Your task to perform on an android device: Go to ESPN.com Image 0: 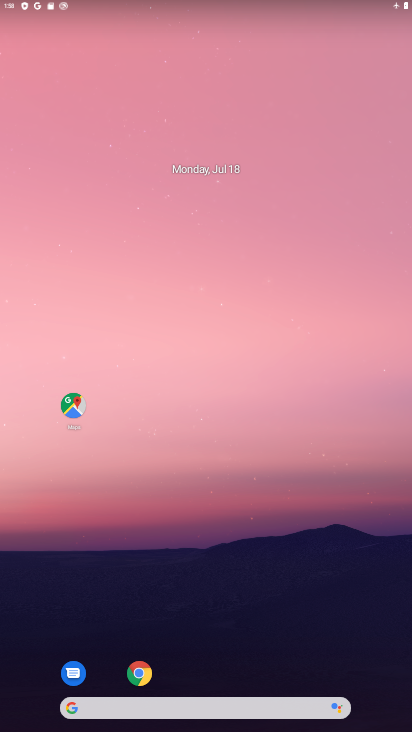
Step 0: click (141, 674)
Your task to perform on an android device: Go to ESPN.com Image 1: 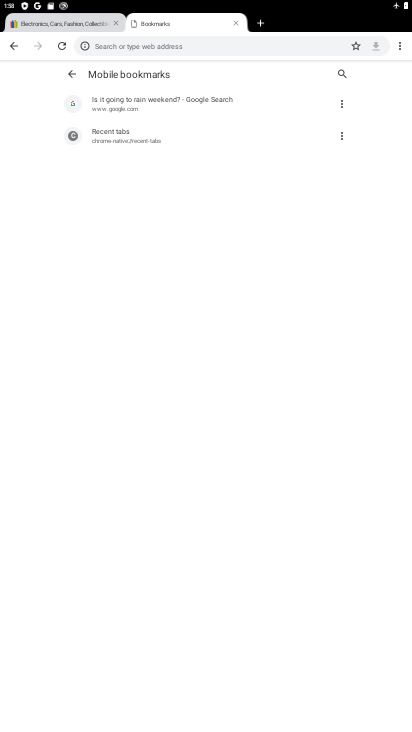
Step 1: click (205, 49)
Your task to perform on an android device: Go to ESPN.com Image 2: 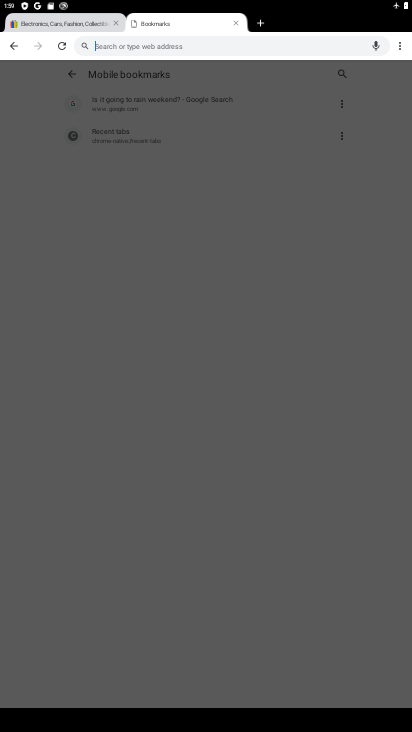
Step 2: type "ESPN.com"
Your task to perform on an android device: Go to ESPN.com Image 3: 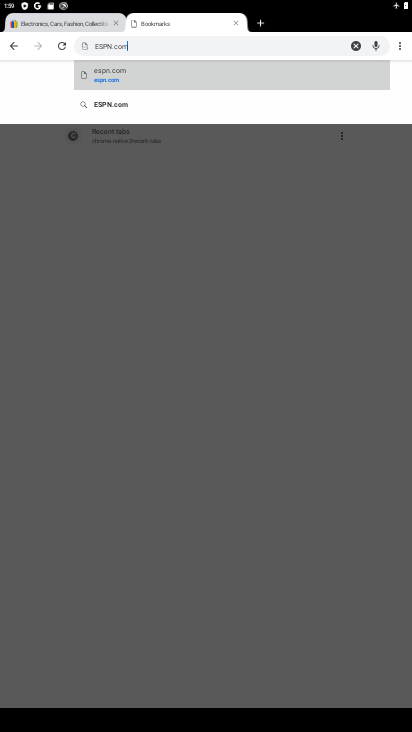
Step 3: type ""
Your task to perform on an android device: Go to ESPN.com Image 4: 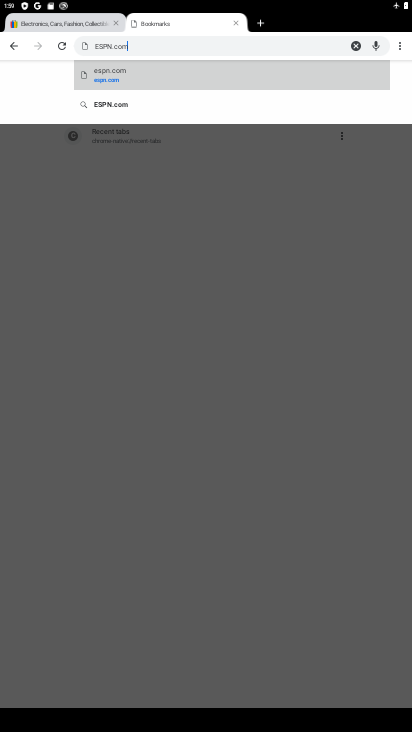
Step 4: click (125, 108)
Your task to perform on an android device: Go to ESPN.com Image 5: 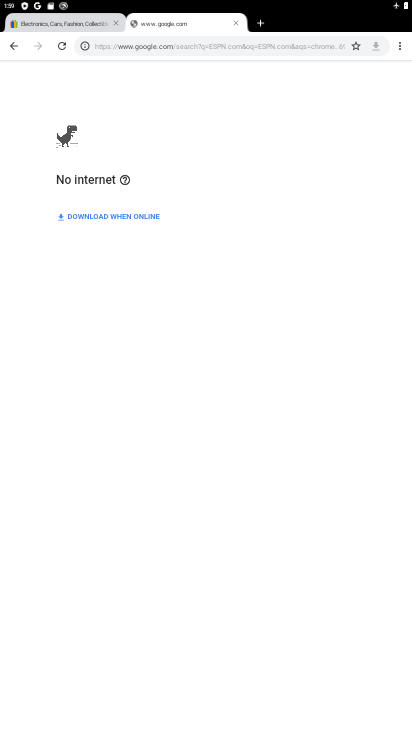
Step 5: task complete